Your task to perform on an android device: find snoozed emails in the gmail app Image 0: 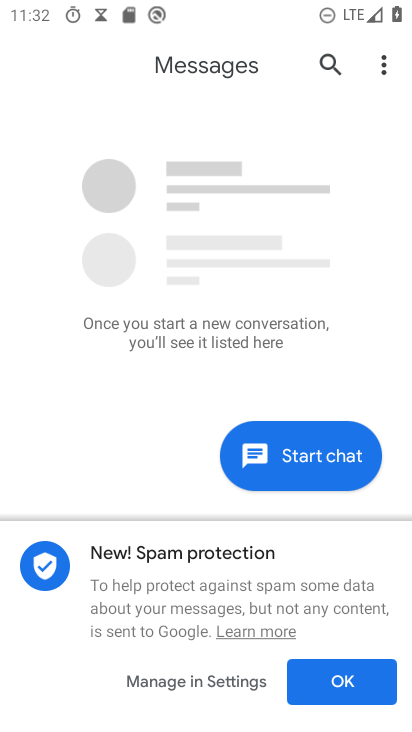
Step 0: press home button
Your task to perform on an android device: find snoozed emails in the gmail app Image 1: 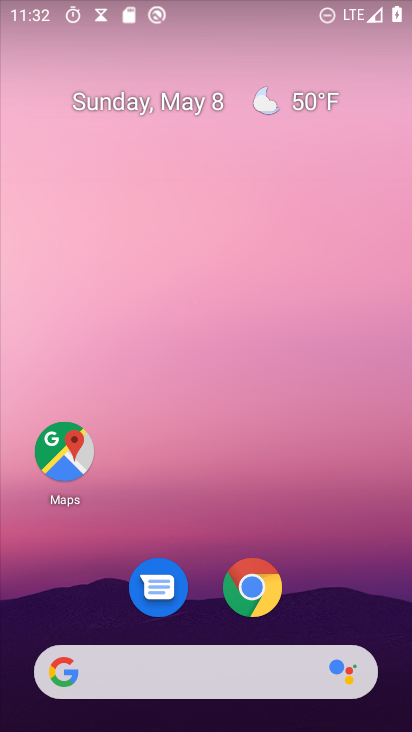
Step 1: drag from (296, 516) to (177, 147)
Your task to perform on an android device: find snoozed emails in the gmail app Image 2: 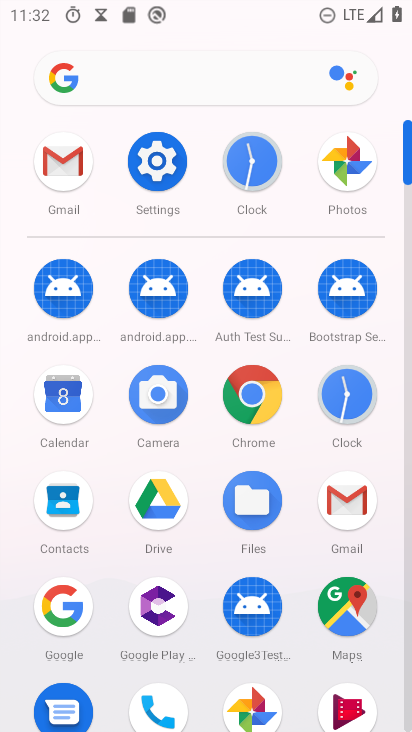
Step 2: click (66, 174)
Your task to perform on an android device: find snoozed emails in the gmail app Image 3: 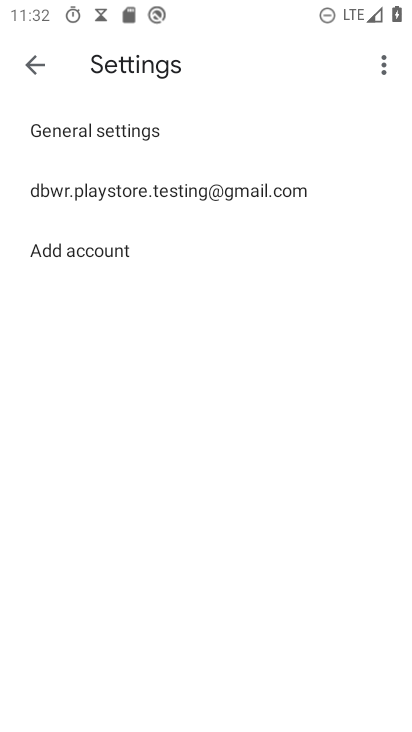
Step 3: press back button
Your task to perform on an android device: find snoozed emails in the gmail app Image 4: 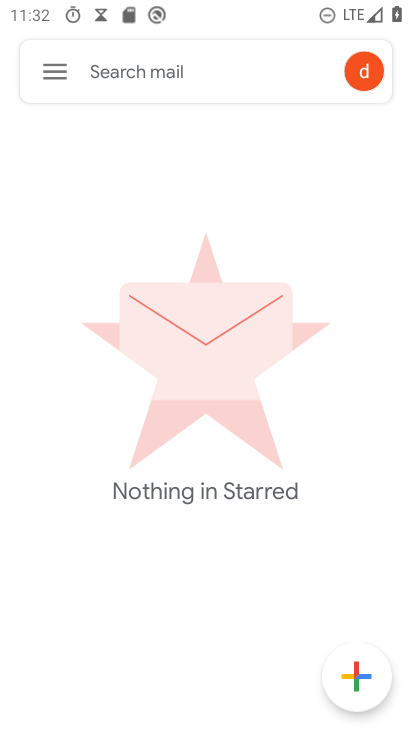
Step 4: click (55, 72)
Your task to perform on an android device: find snoozed emails in the gmail app Image 5: 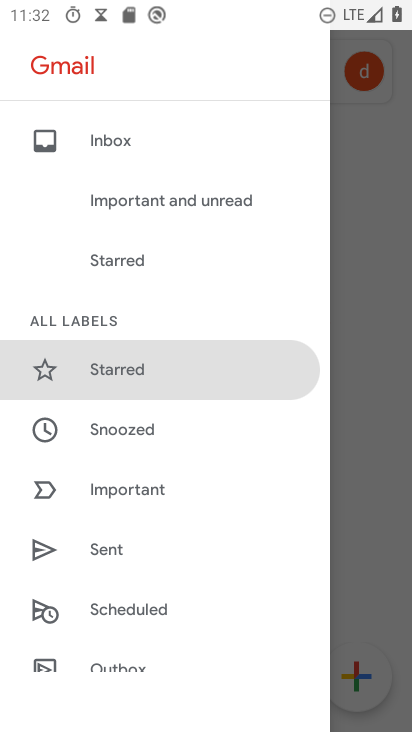
Step 5: click (152, 435)
Your task to perform on an android device: find snoozed emails in the gmail app Image 6: 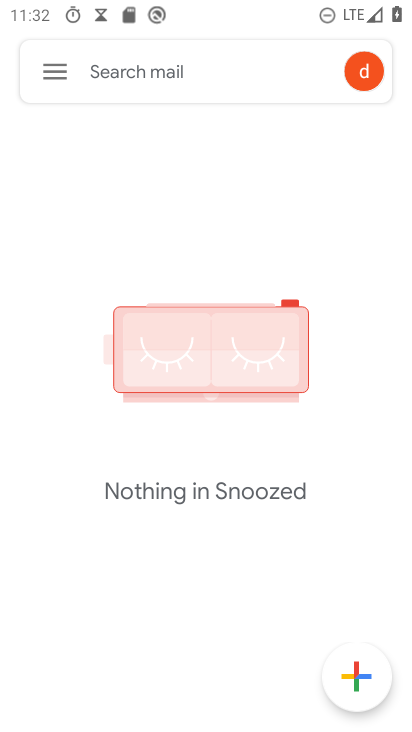
Step 6: task complete